Your task to perform on an android device: Open Maps and search for coffee Image 0: 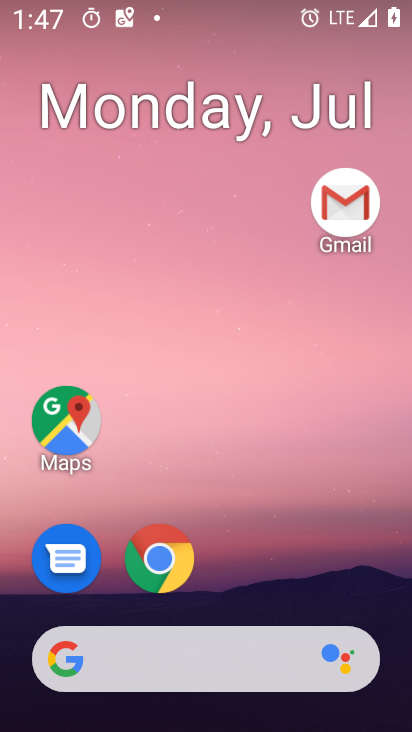
Step 0: drag from (356, 545) to (353, 161)
Your task to perform on an android device: Open Maps and search for coffee Image 1: 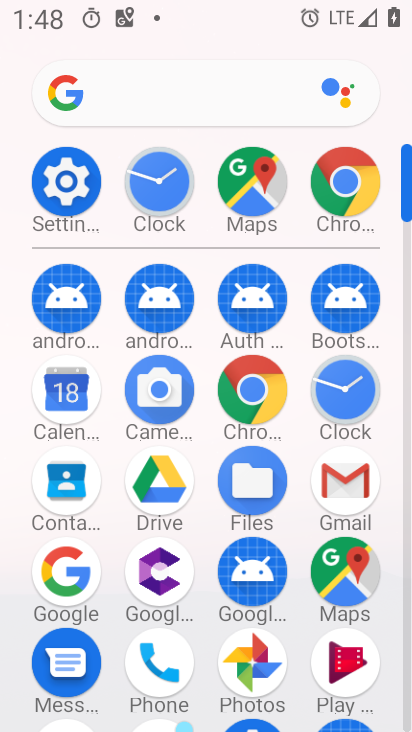
Step 1: click (350, 568)
Your task to perform on an android device: Open Maps and search for coffee Image 2: 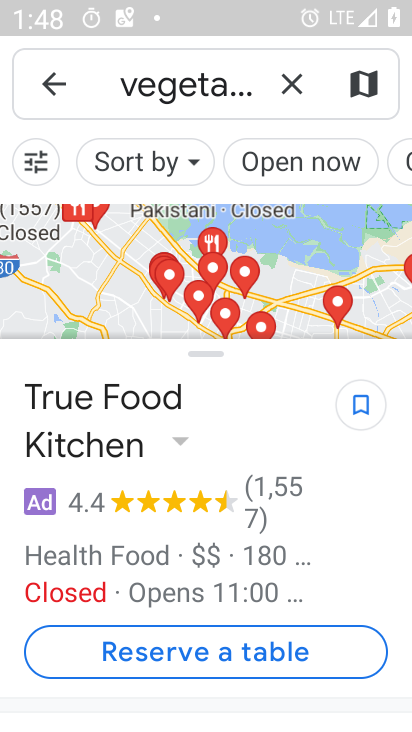
Step 2: press back button
Your task to perform on an android device: Open Maps and search for coffee Image 3: 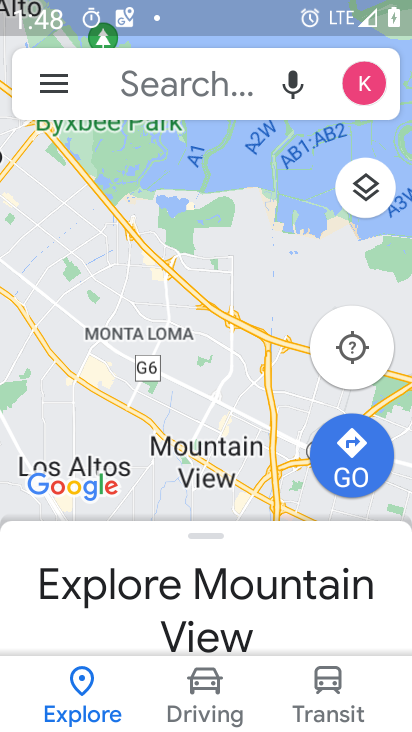
Step 3: click (203, 93)
Your task to perform on an android device: Open Maps and search for coffee Image 4: 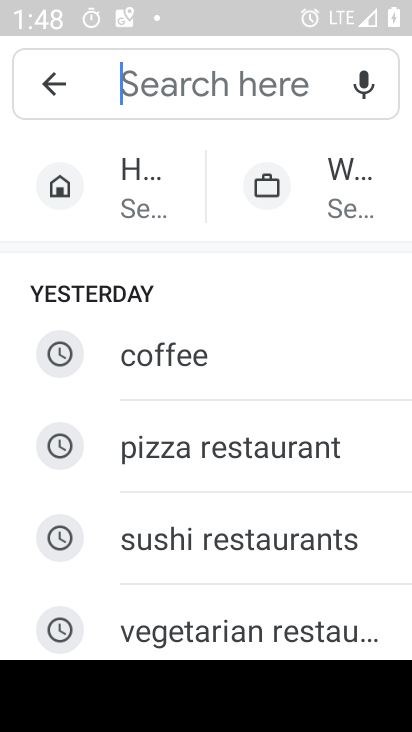
Step 4: type "coffee"
Your task to perform on an android device: Open Maps and search for coffee Image 5: 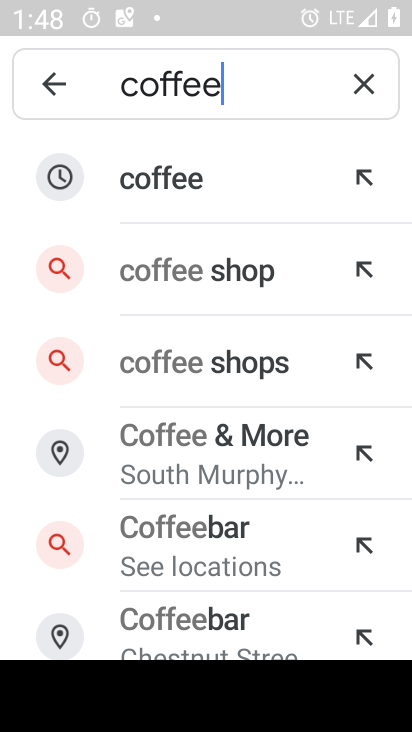
Step 5: click (232, 183)
Your task to perform on an android device: Open Maps and search for coffee Image 6: 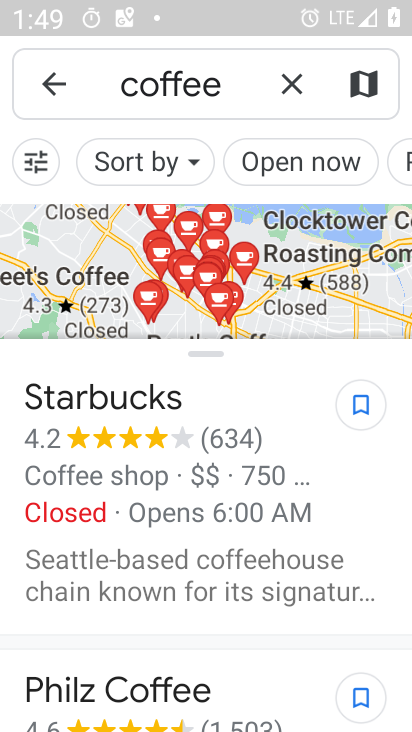
Step 6: task complete